Your task to perform on an android device: Go to Amazon Image 0: 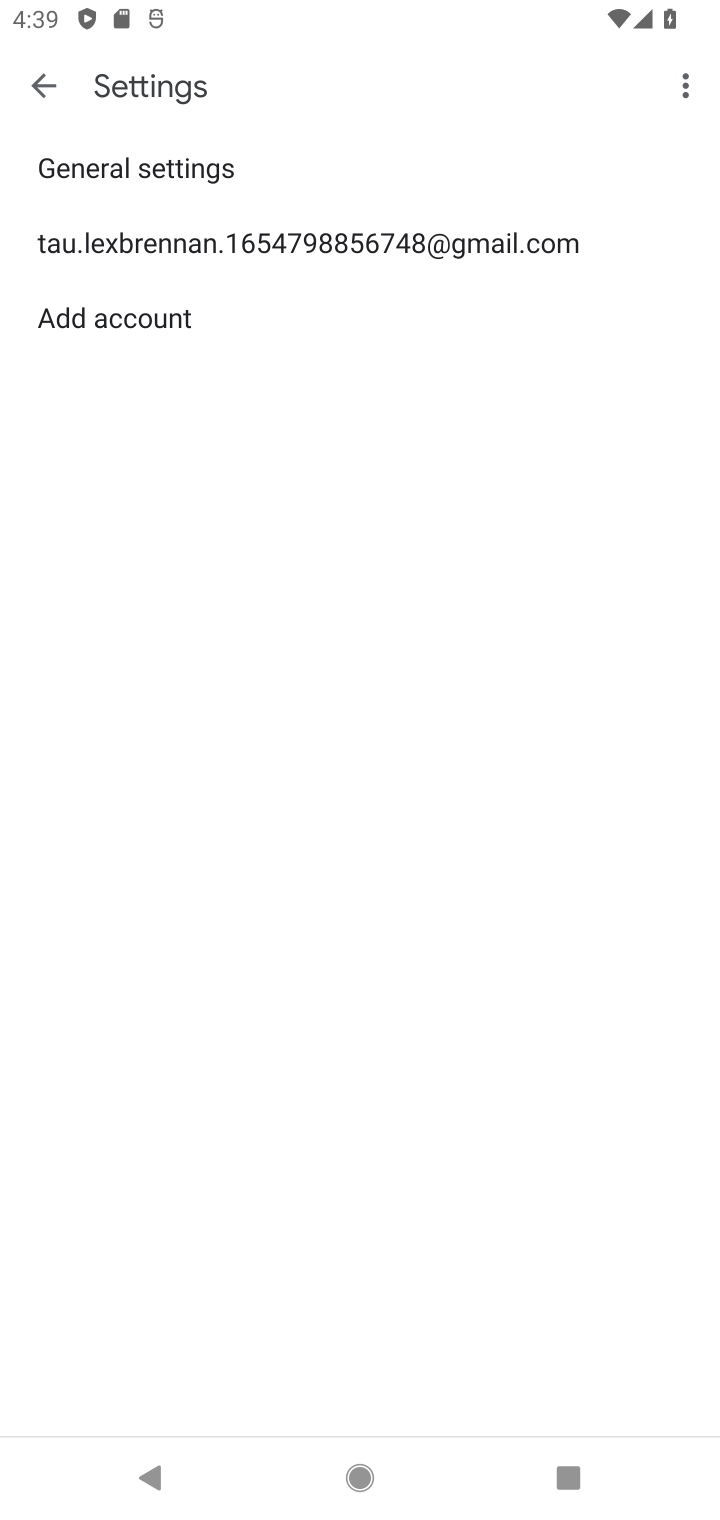
Step 0: press back button
Your task to perform on an android device: Go to Amazon Image 1: 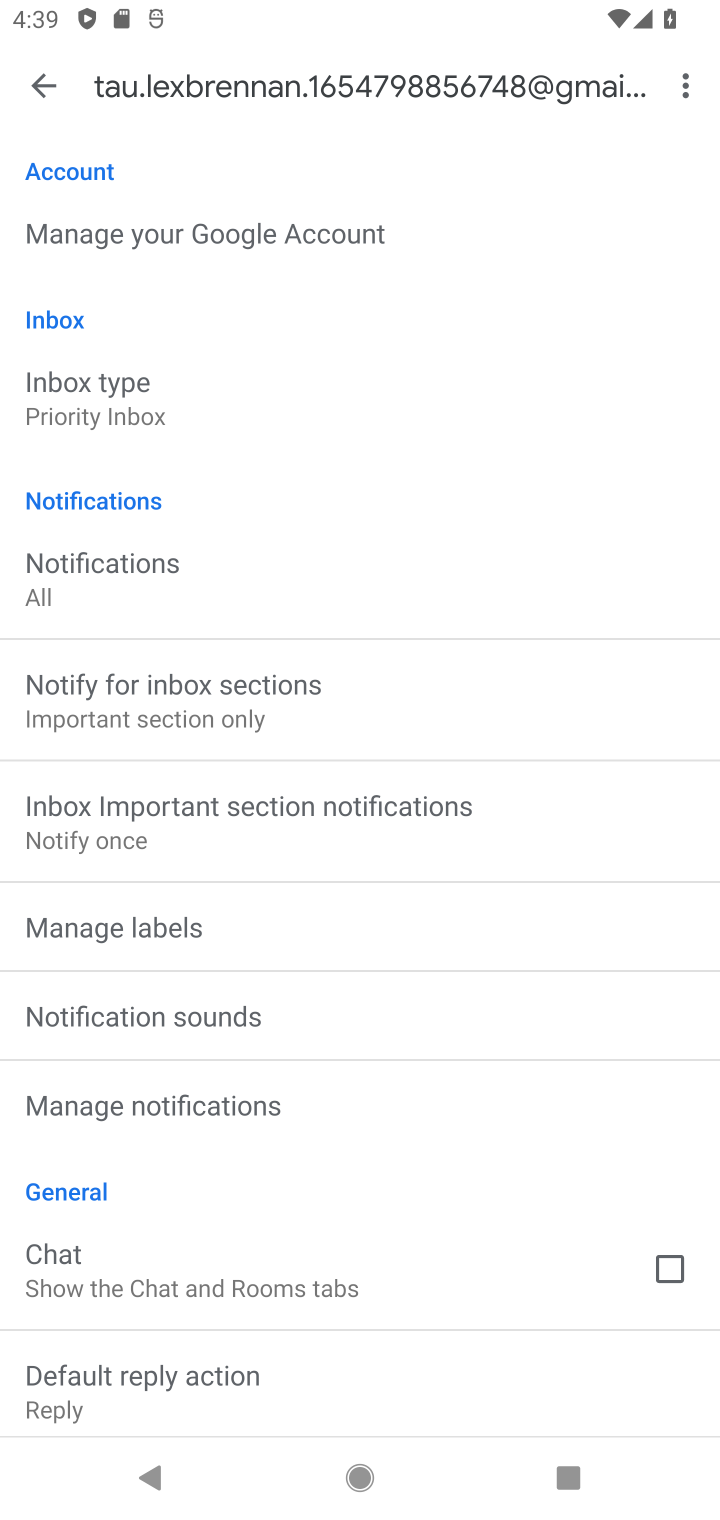
Step 1: press back button
Your task to perform on an android device: Go to Amazon Image 2: 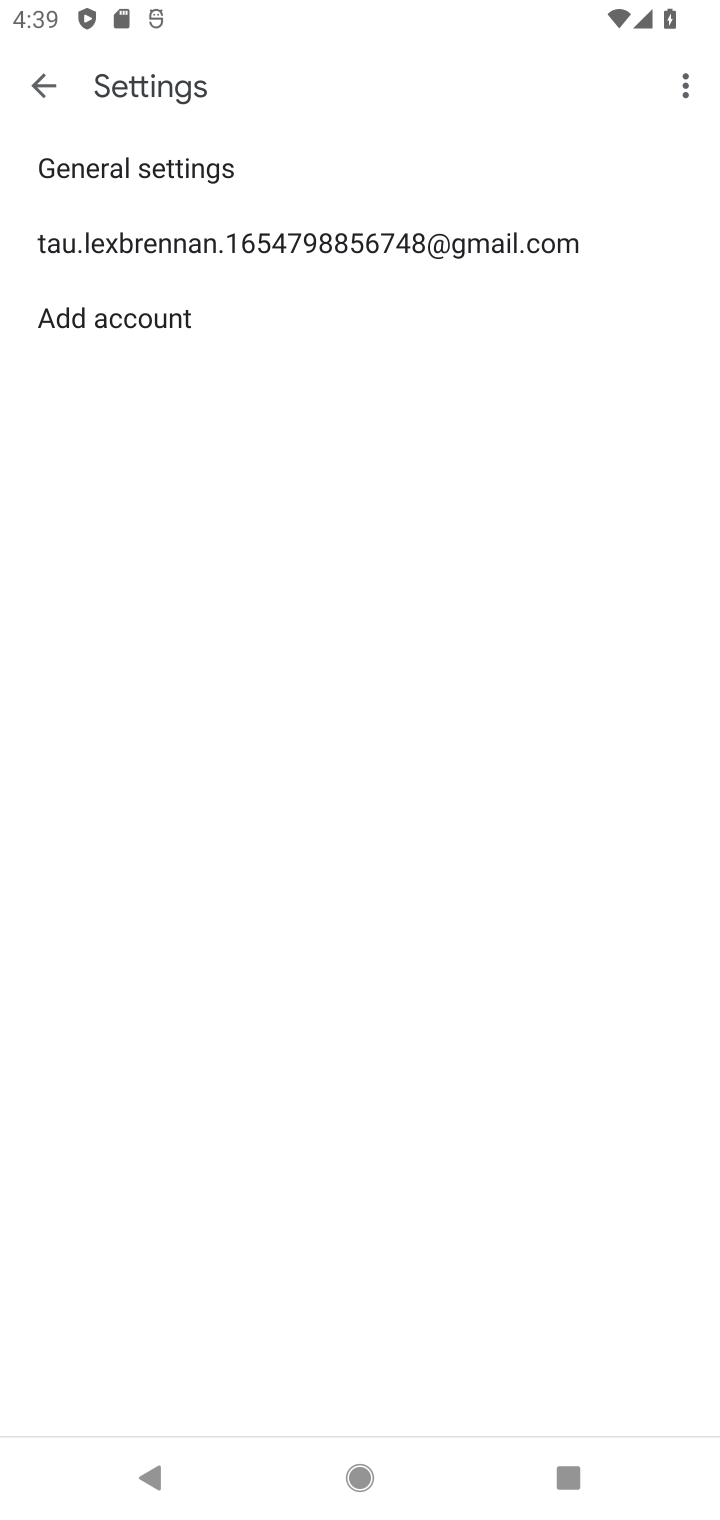
Step 2: press back button
Your task to perform on an android device: Go to Amazon Image 3: 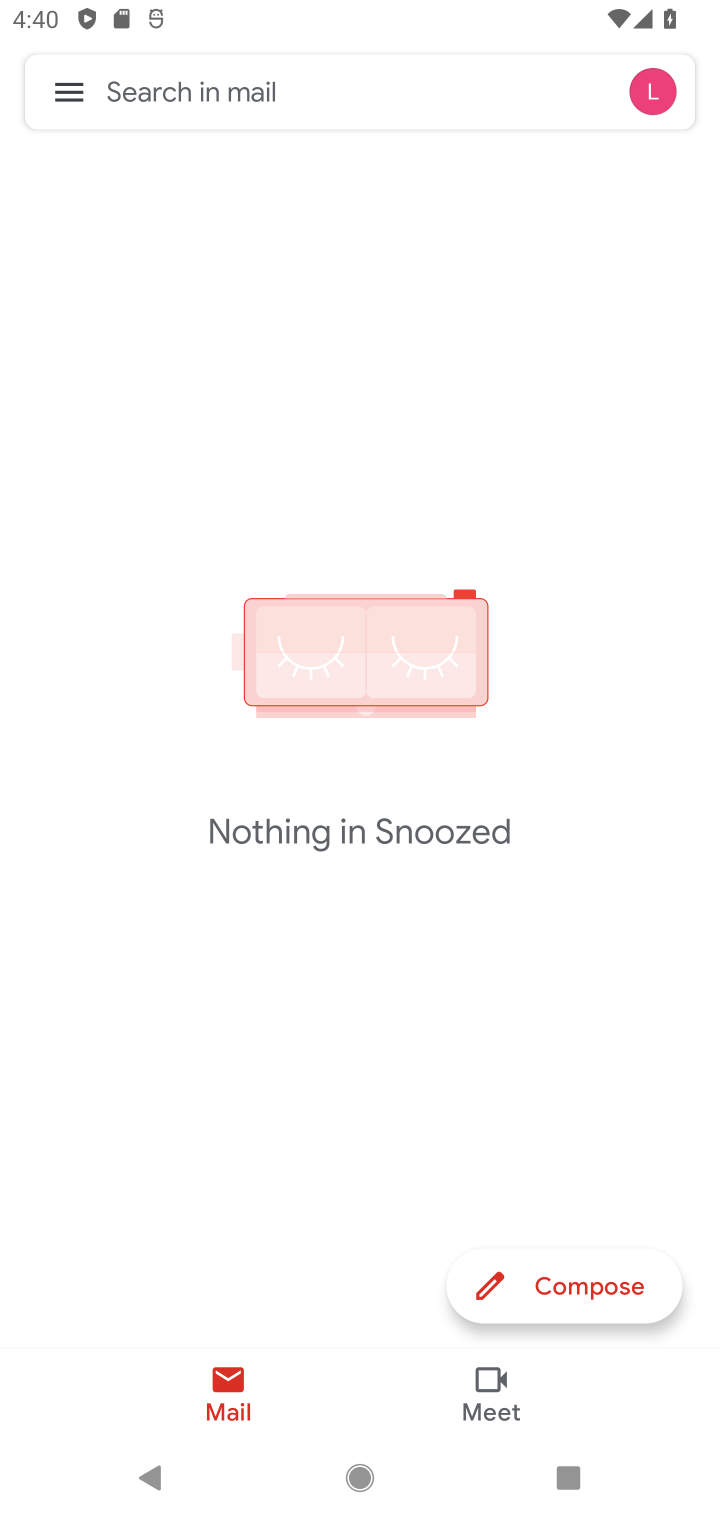
Step 3: press back button
Your task to perform on an android device: Go to Amazon Image 4: 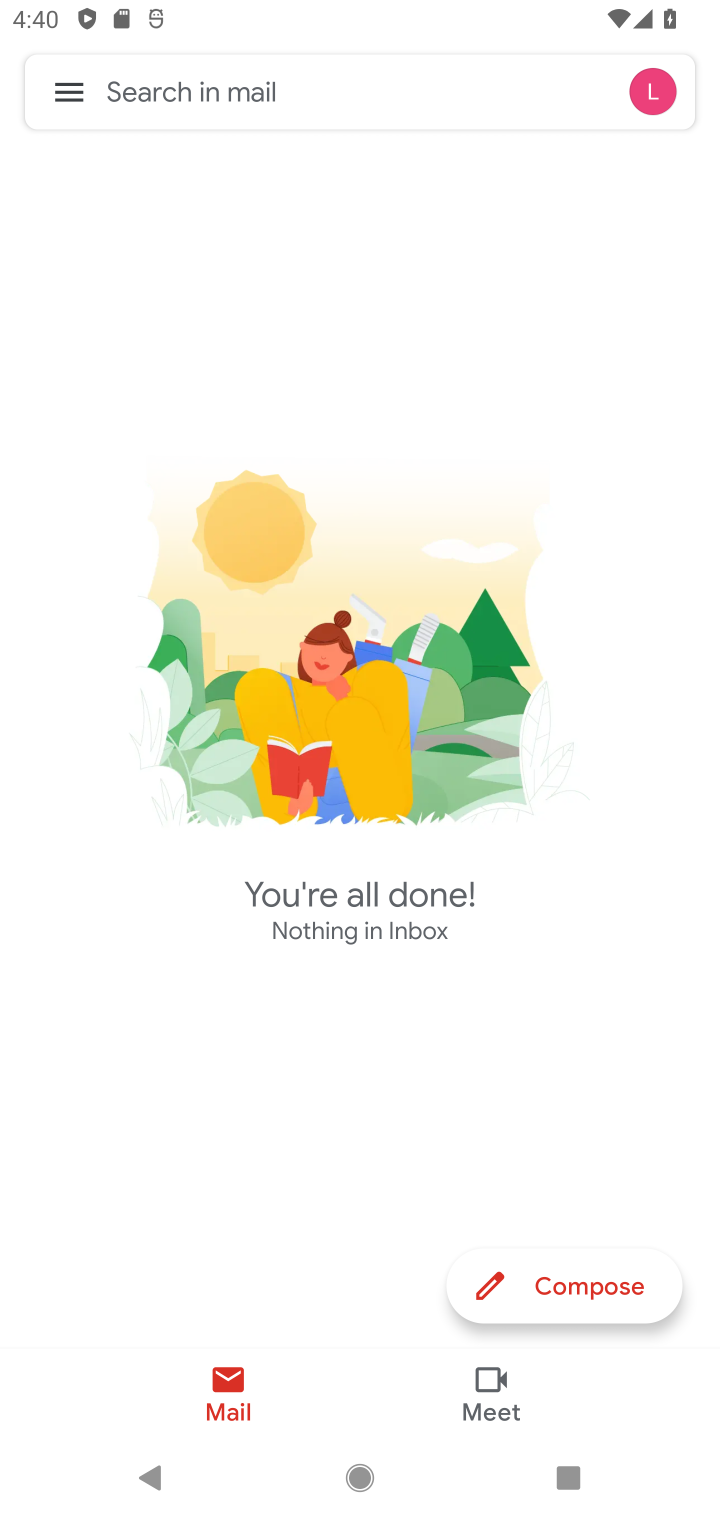
Step 4: press back button
Your task to perform on an android device: Go to Amazon Image 5: 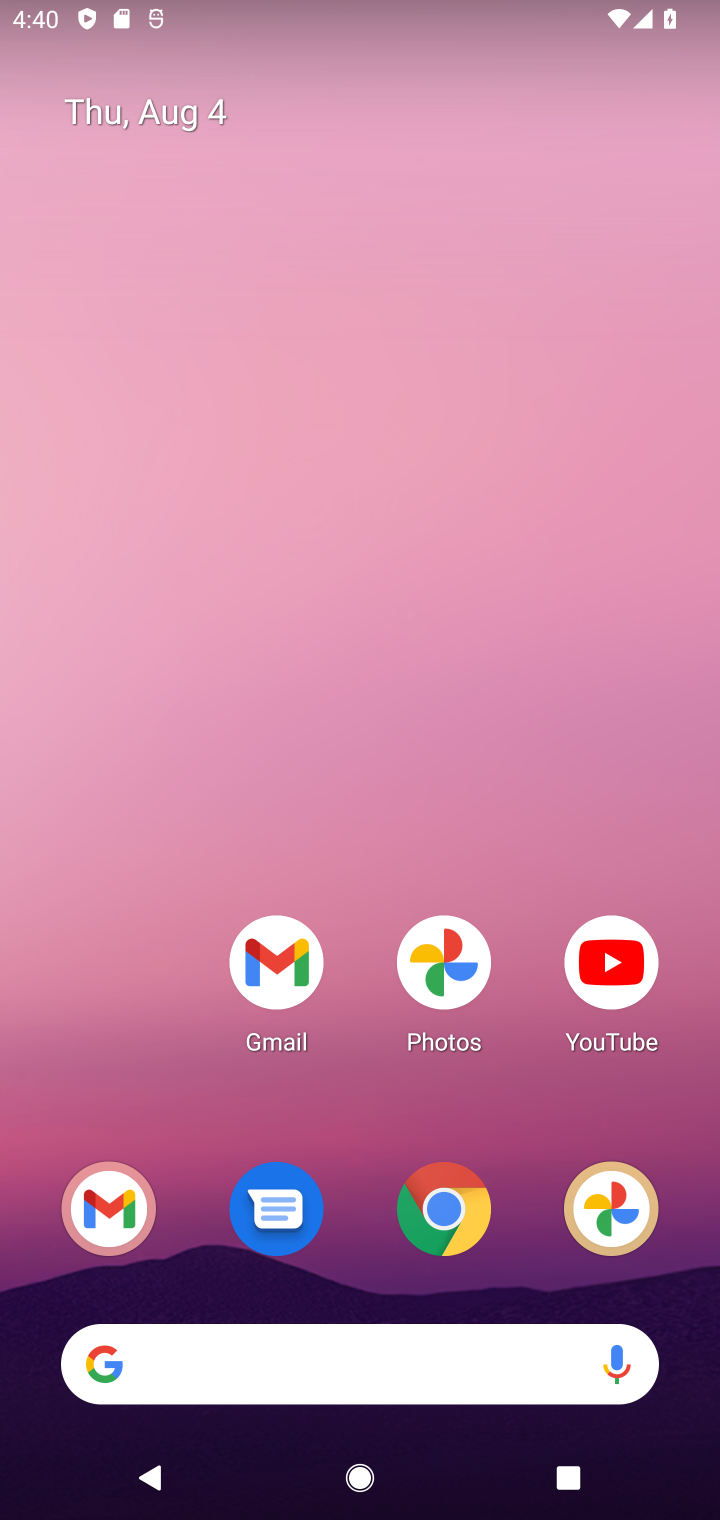
Step 5: click (432, 1204)
Your task to perform on an android device: Go to Amazon Image 6: 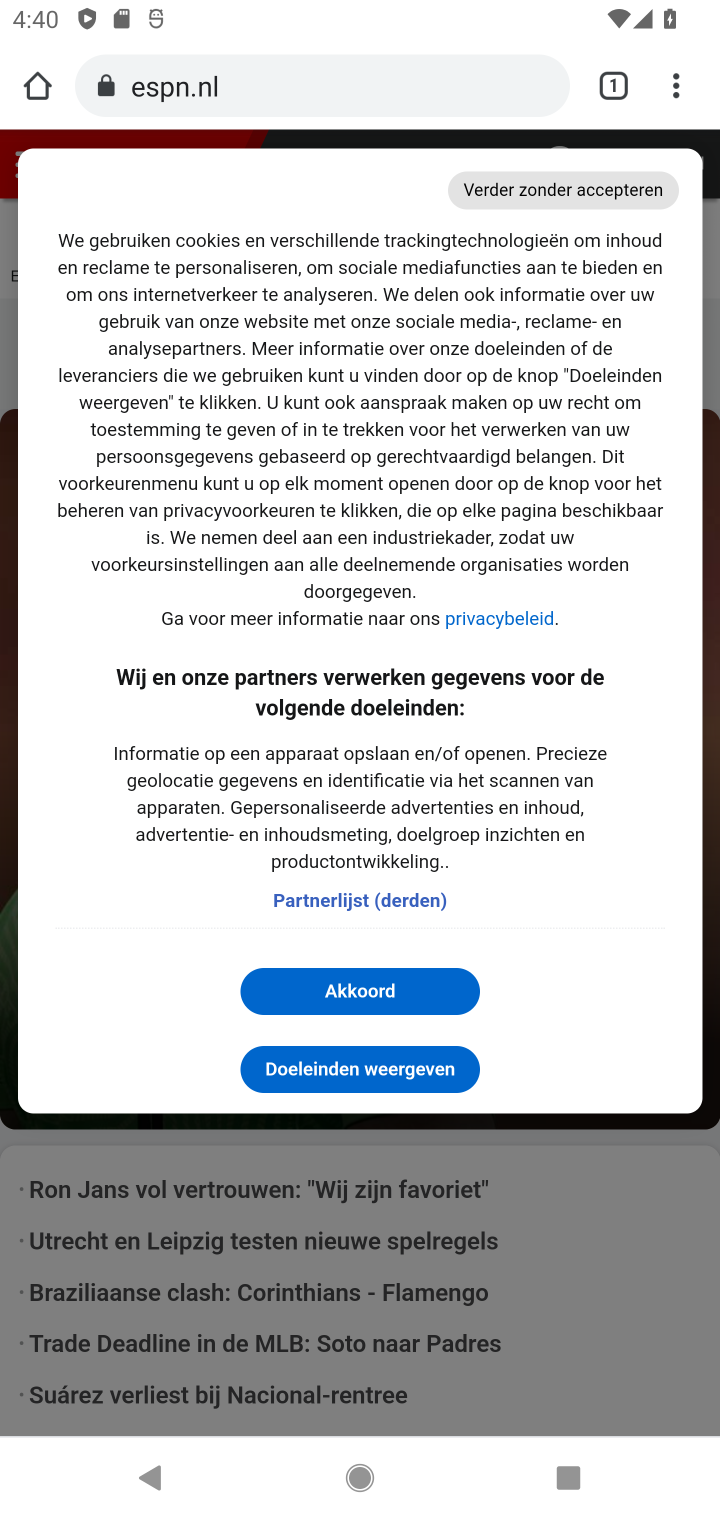
Step 6: press back button
Your task to perform on an android device: Go to Amazon Image 7: 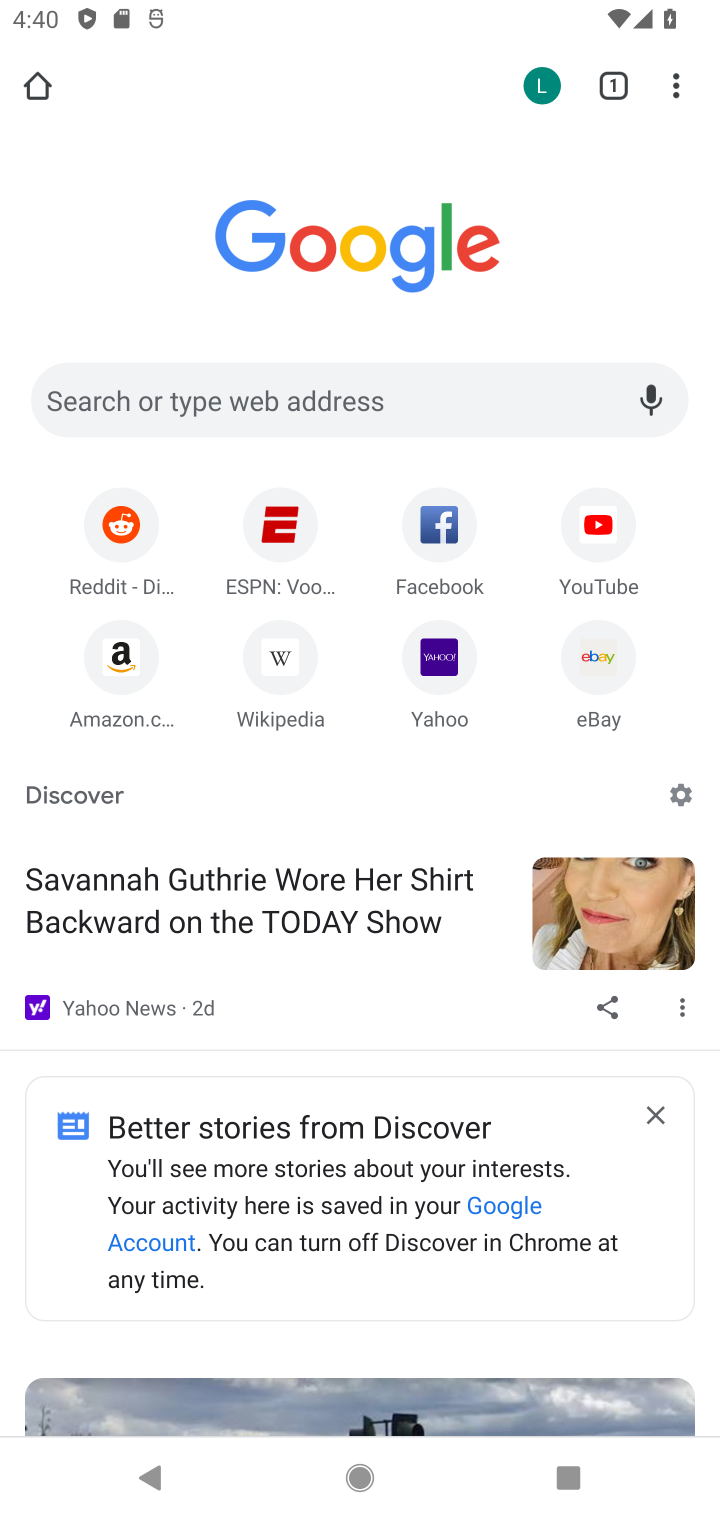
Step 7: click (118, 680)
Your task to perform on an android device: Go to Amazon Image 8: 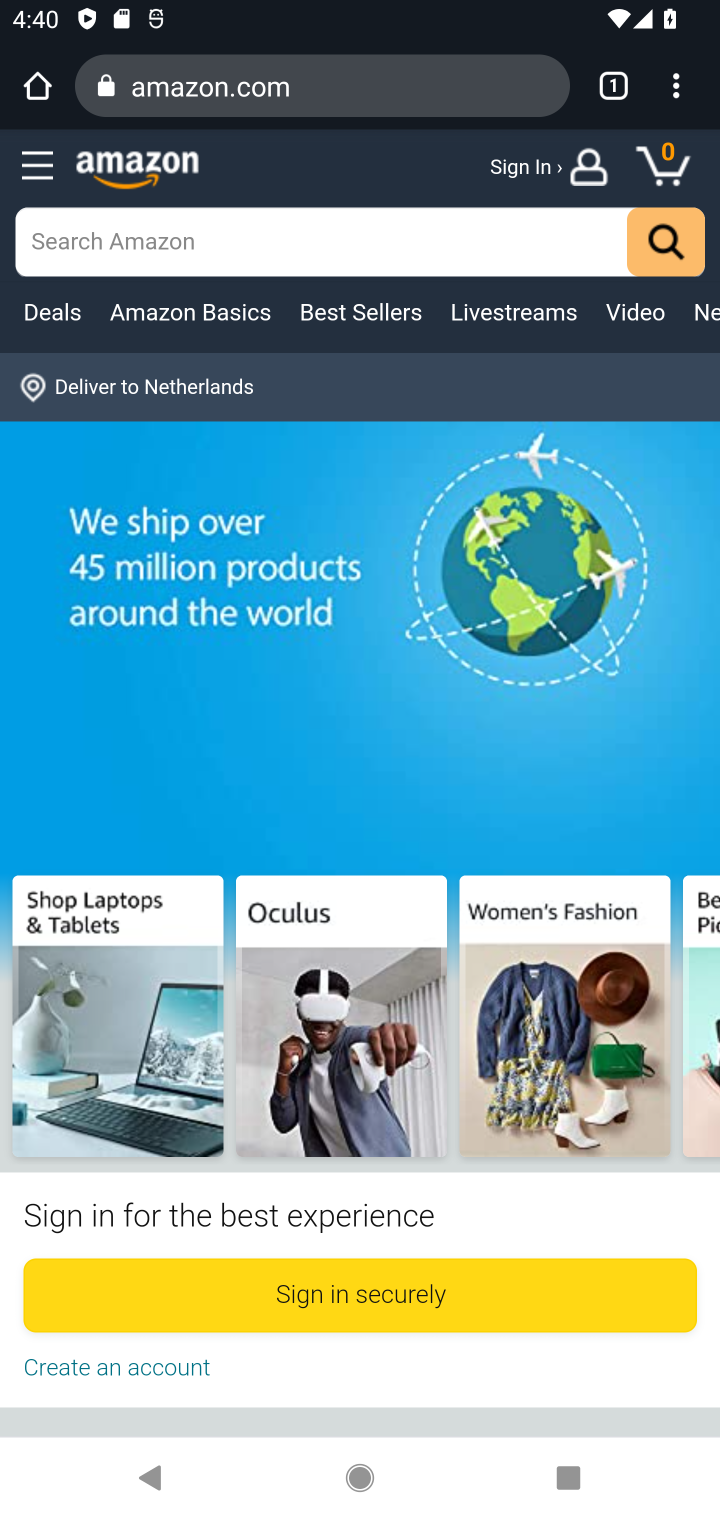
Step 8: task complete